Your task to perform on an android device: turn on javascript in the chrome app Image 0: 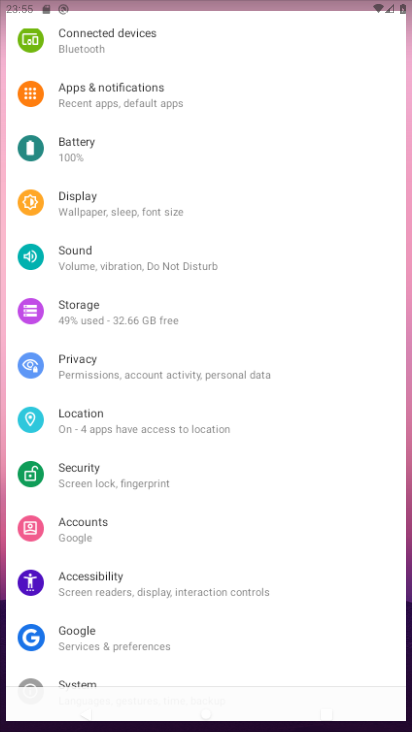
Step 0: drag from (301, 599) to (286, 110)
Your task to perform on an android device: turn on javascript in the chrome app Image 1: 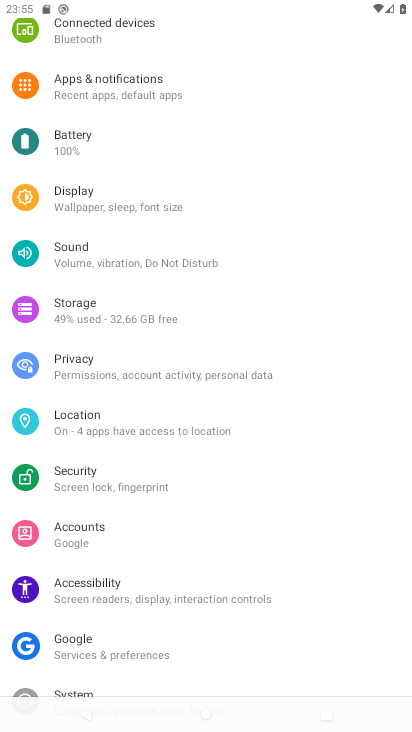
Step 1: press home button
Your task to perform on an android device: turn on javascript in the chrome app Image 2: 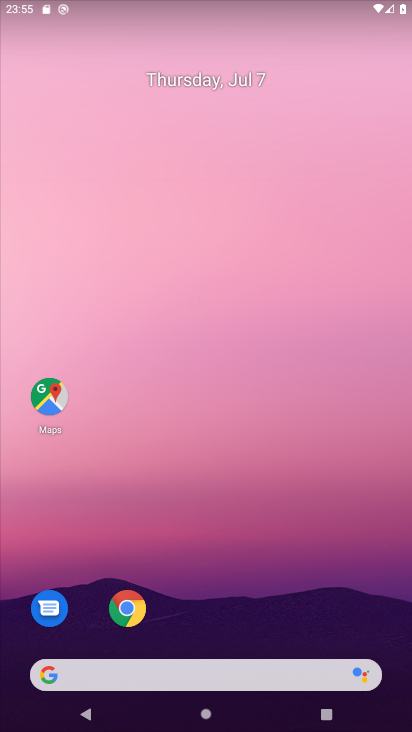
Step 2: drag from (208, 590) to (192, 348)
Your task to perform on an android device: turn on javascript in the chrome app Image 3: 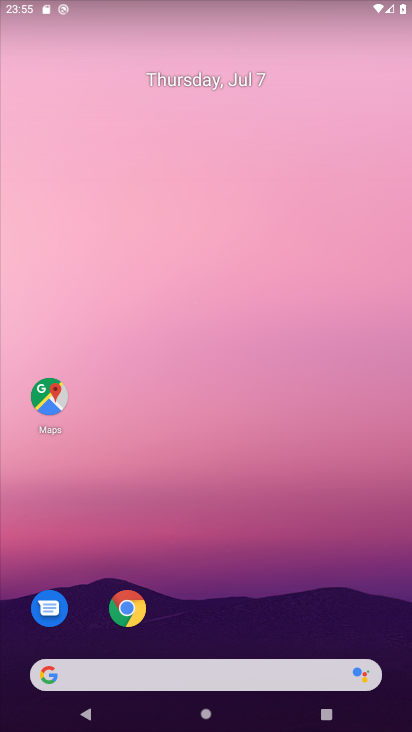
Step 3: drag from (267, 636) to (230, 168)
Your task to perform on an android device: turn on javascript in the chrome app Image 4: 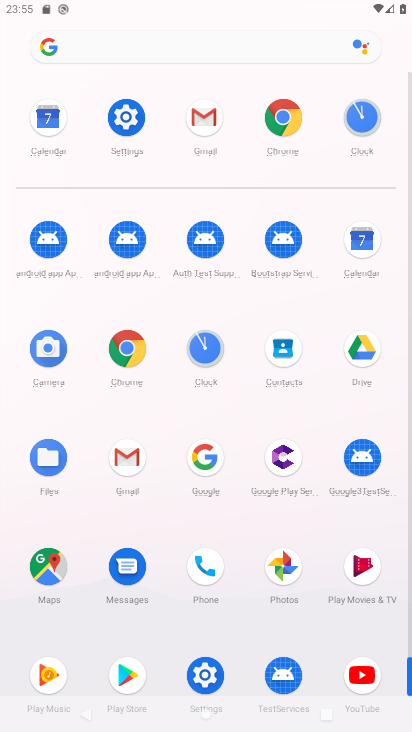
Step 4: click (124, 351)
Your task to perform on an android device: turn on javascript in the chrome app Image 5: 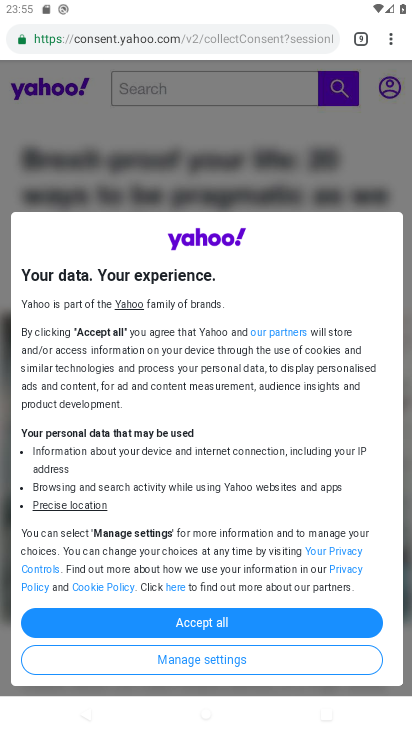
Step 5: click (397, 35)
Your task to perform on an android device: turn on javascript in the chrome app Image 6: 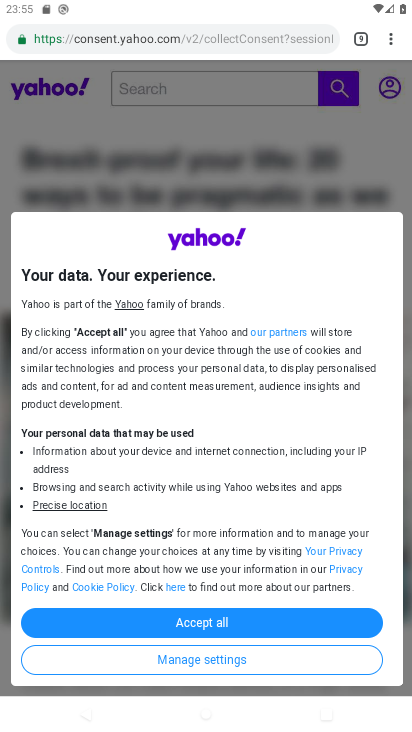
Step 6: click (397, 35)
Your task to perform on an android device: turn on javascript in the chrome app Image 7: 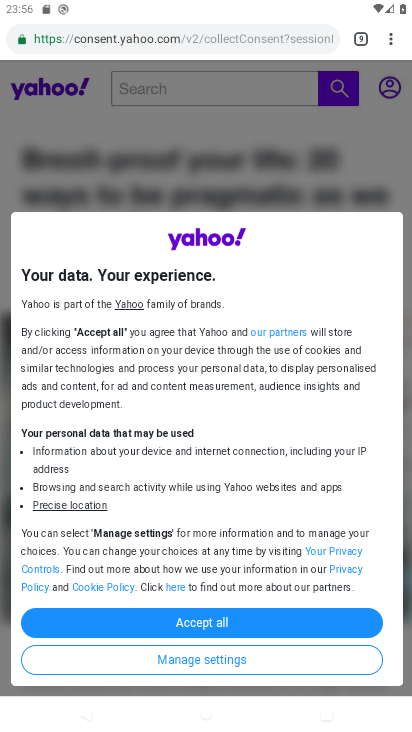
Step 7: click (386, 34)
Your task to perform on an android device: turn on javascript in the chrome app Image 8: 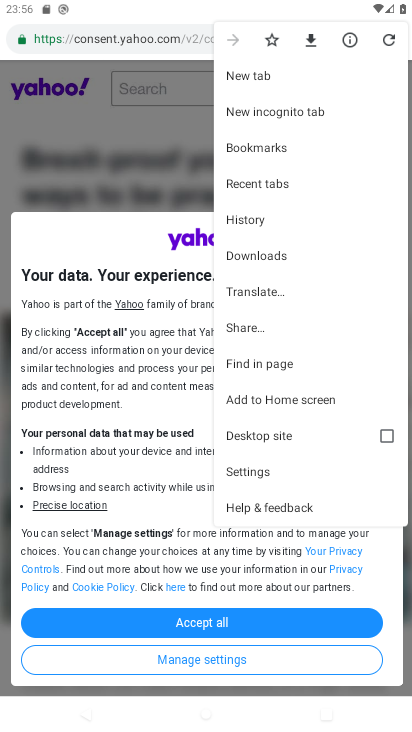
Step 8: click (276, 466)
Your task to perform on an android device: turn on javascript in the chrome app Image 9: 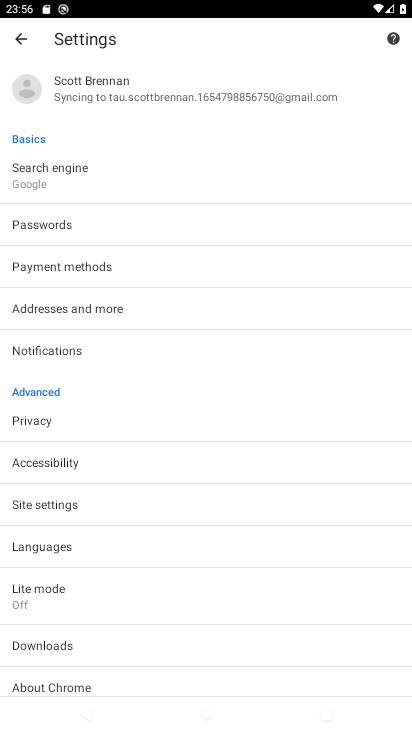
Step 9: click (79, 494)
Your task to perform on an android device: turn on javascript in the chrome app Image 10: 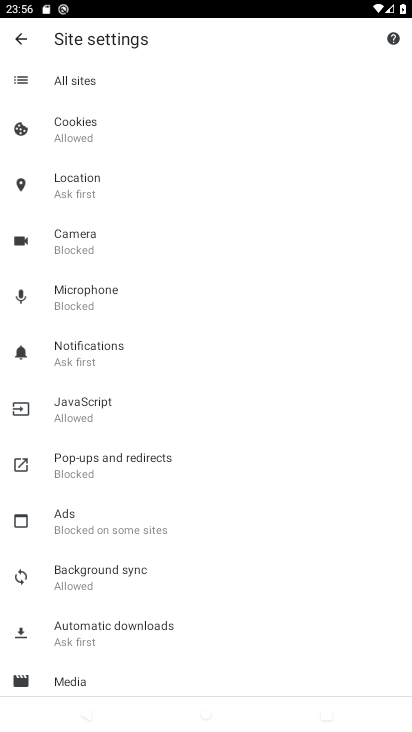
Step 10: click (105, 394)
Your task to perform on an android device: turn on javascript in the chrome app Image 11: 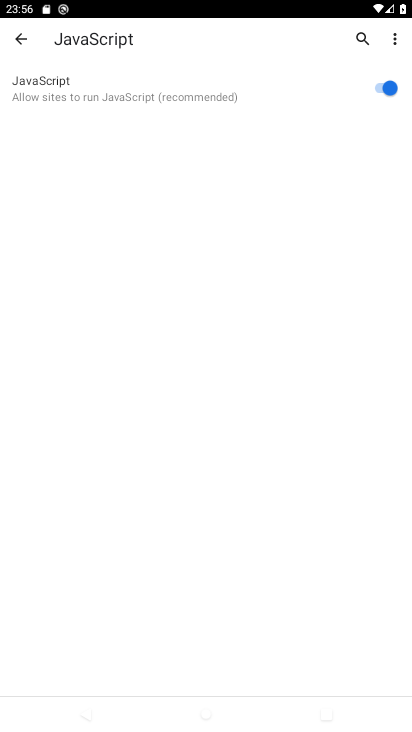
Step 11: task complete